Your task to perform on an android device: Open Reddit.com Image 0: 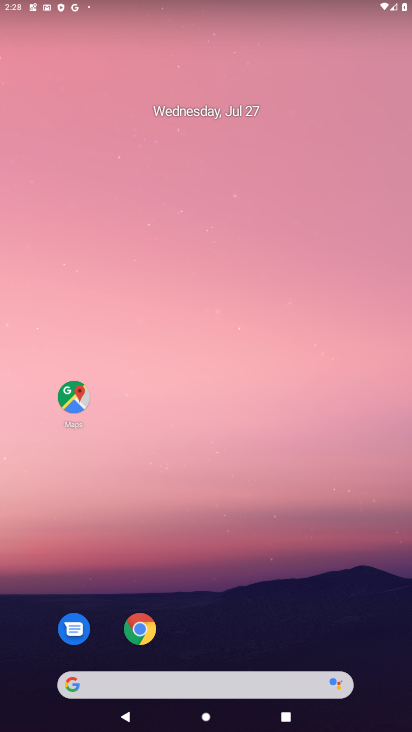
Step 0: click (130, 628)
Your task to perform on an android device: Open Reddit.com Image 1: 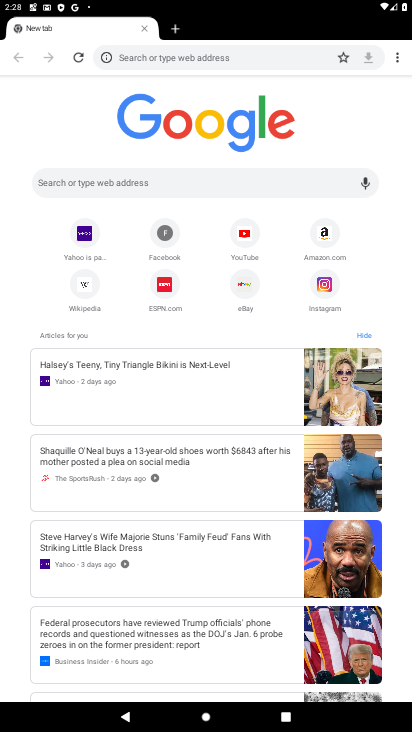
Step 1: task complete